Your task to perform on an android device: Open Google Image 0: 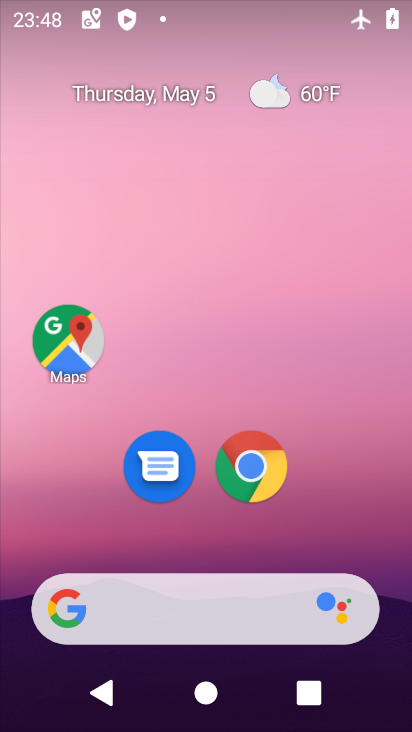
Step 0: drag from (199, 573) to (257, 210)
Your task to perform on an android device: Open Google Image 1: 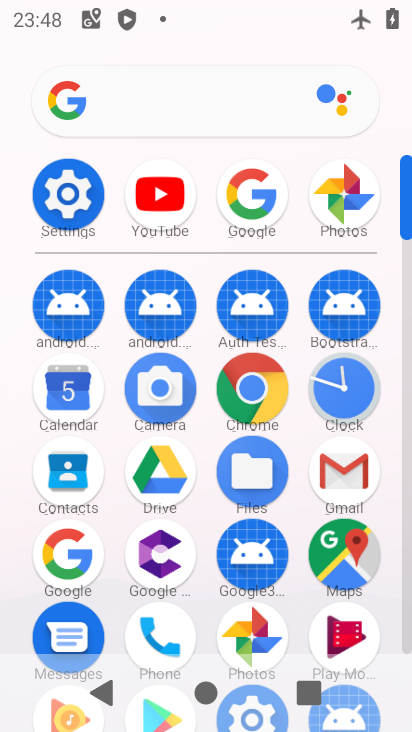
Step 1: click (248, 191)
Your task to perform on an android device: Open Google Image 2: 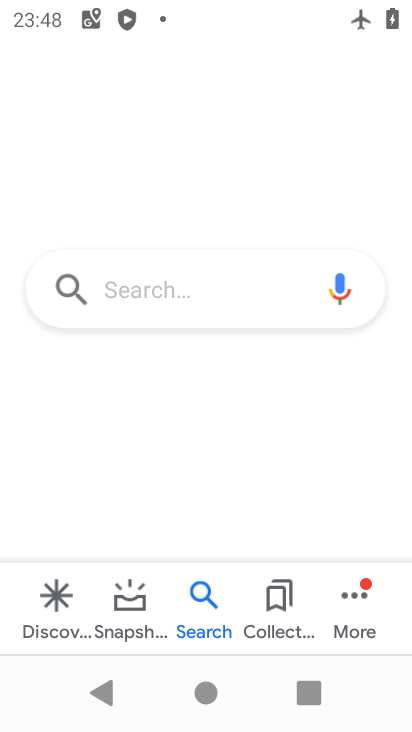
Step 2: task complete